Your task to perform on an android device: When is my next appointment? Image 0: 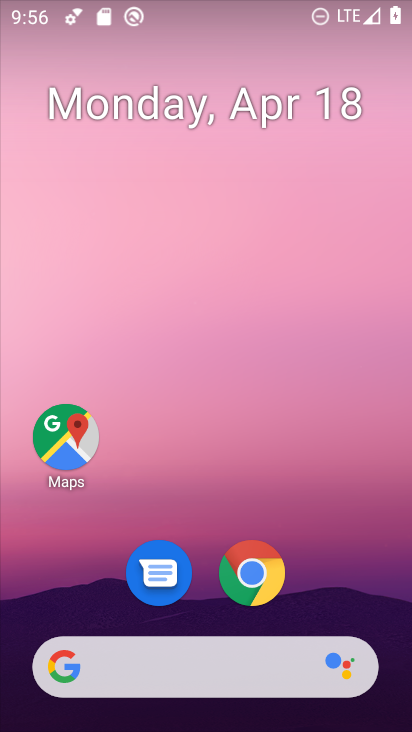
Step 0: drag from (343, 592) to (267, 4)
Your task to perform on an android device: When is my next appointment? Image 1: 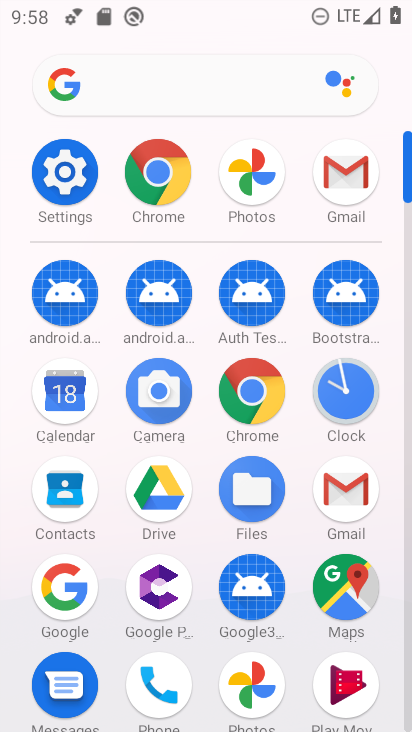
Step 1: task complete